Your task to perform on an android device: Go to Android settings Image 0: 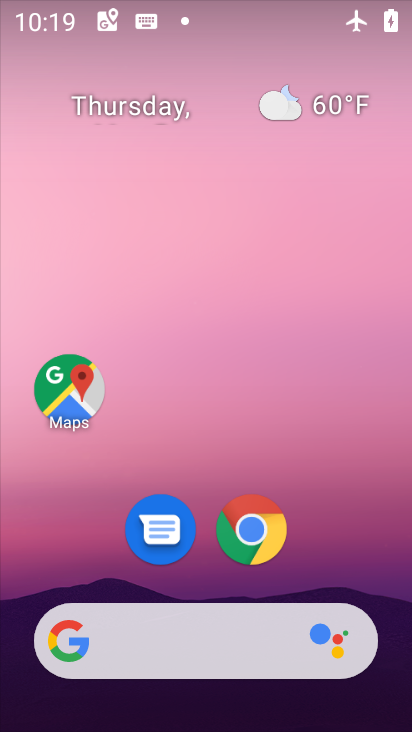
Step 0: drag from (363, 598) to (208, 36)
Your task to perform on an android device: Go to Android settings Image 1: 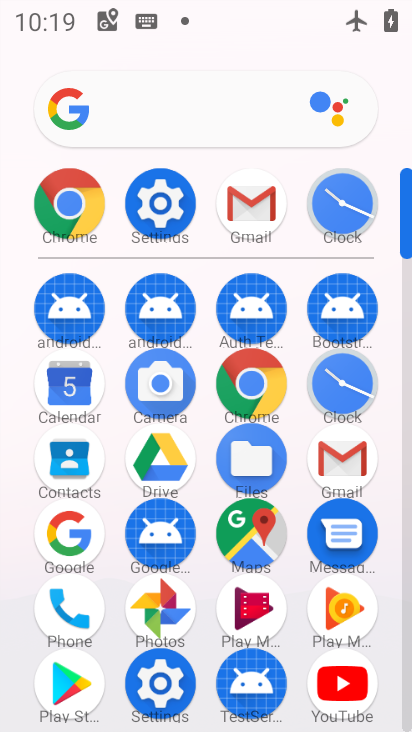
Step 1: click (146, 207)
Your task to perform on an android device: Go to Android settings Image 2: 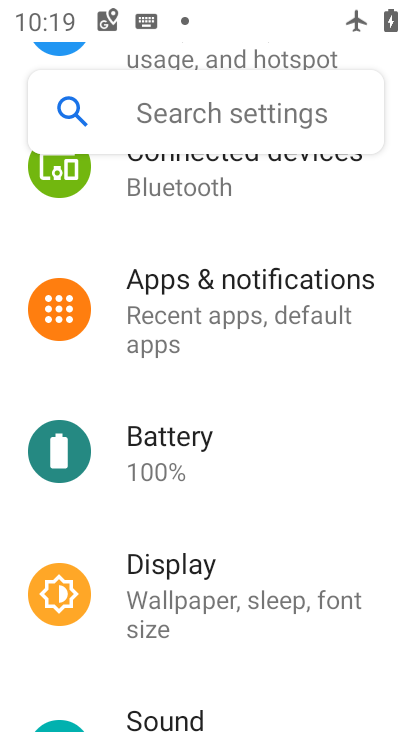
Step 2: press home button
Your task to perform on an android device: Go to Android settings Image 3: 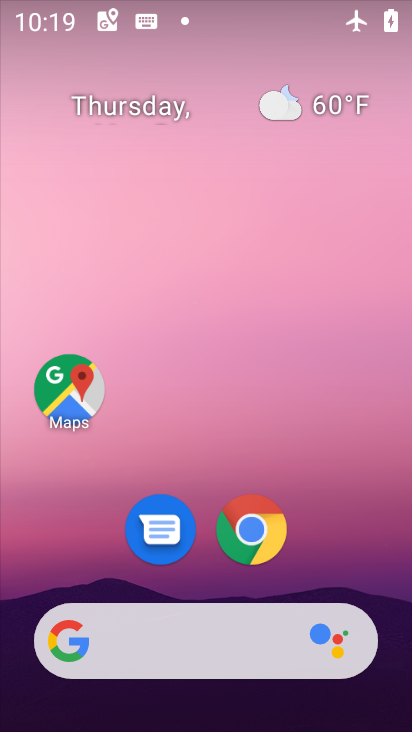
Step 3: drag from (378, 578) to (255, 52)
Your task to perform on an android device: Go to Android settings Image 4: 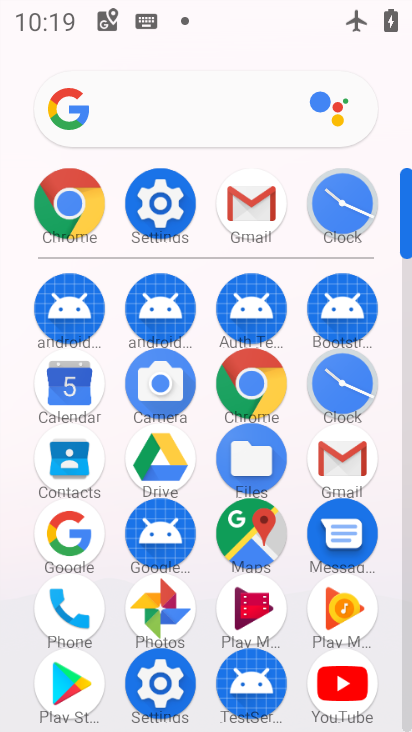
Step 4: click (164, 678)
Your task to perform on an android device: Go to Android settings Image 5: 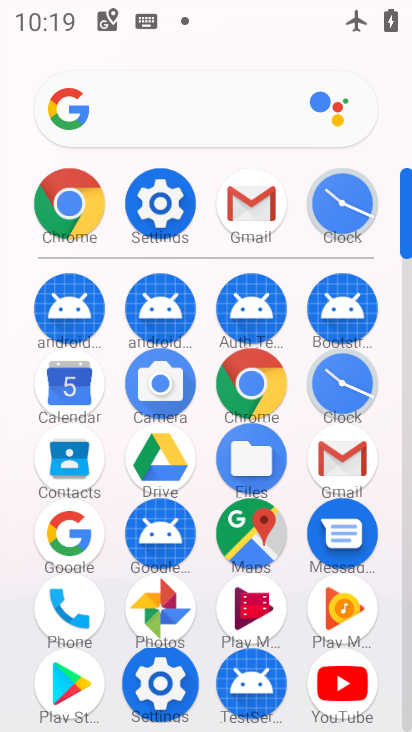
Step 5: click (164, 678)
Your task to perform on an android device: Go to Android settings Image 6: 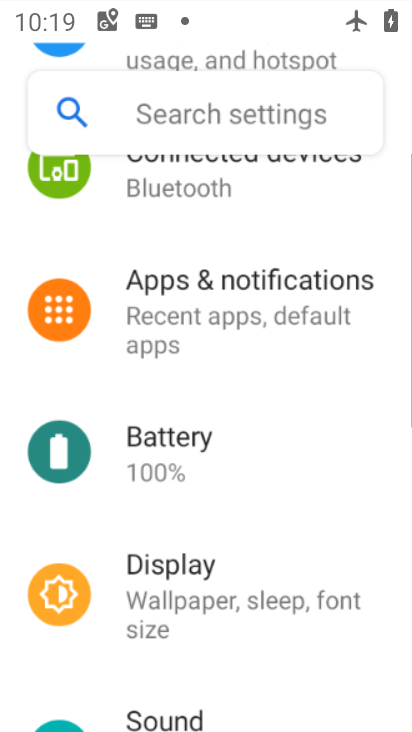
Step 6: click (163, 678)
Your task to perform on an android device: Go to Android settings Image 7: 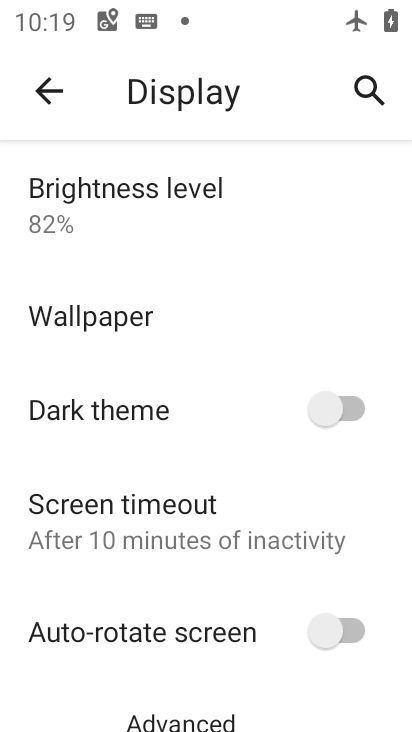
Step 7: drag from (190, 538) to (189, 121)
Your task to perform on an android device: Go to Android settings Image 8: 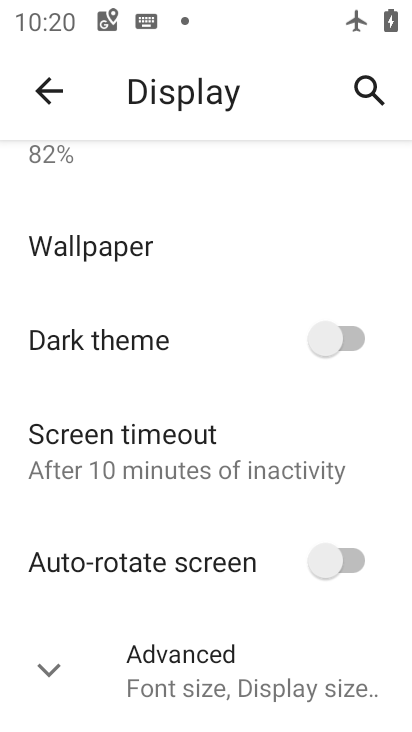
Step 8: click (45, 87)
Your task to perform on an android device: Go to Android settings Image 9: 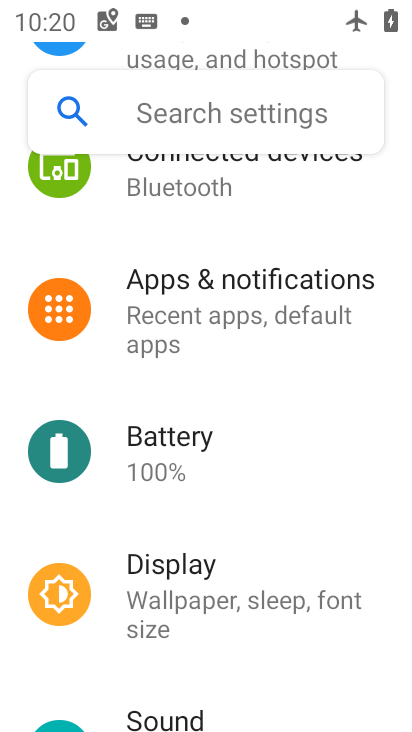
Step 9: drag from (235, 585) to (212, 284)
Your task to perform on an android device: Go to Android settings Image 10: 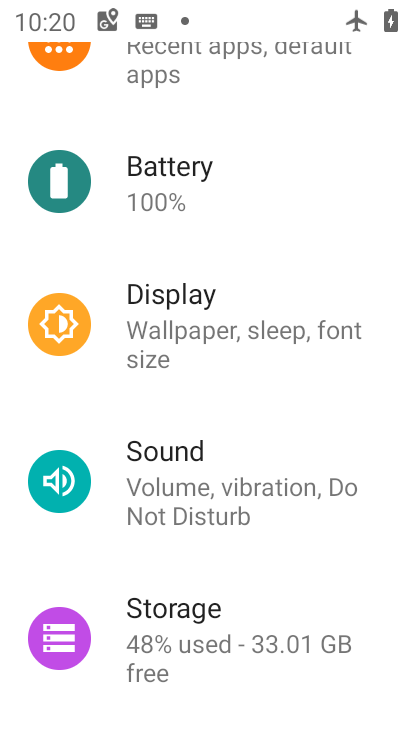
Step 10: drag from (259, 482) to (261, 570)
Your task to perform on an android device: Go to Android settings Image 11: 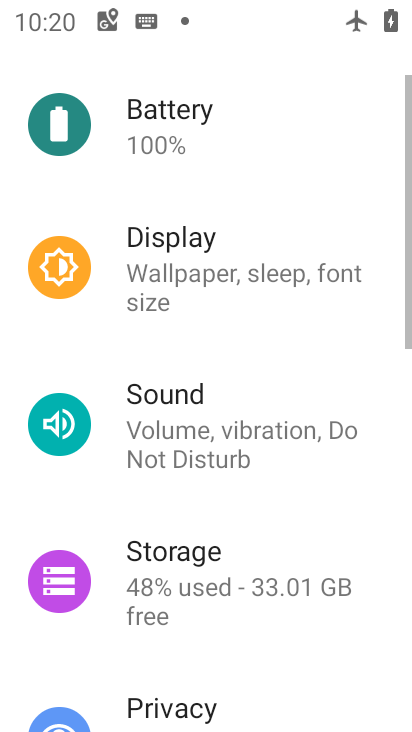
Step 11: drag from (186, 608) to (153, 212)
Your task to perform on an android device: Go to Android settings Image 12: 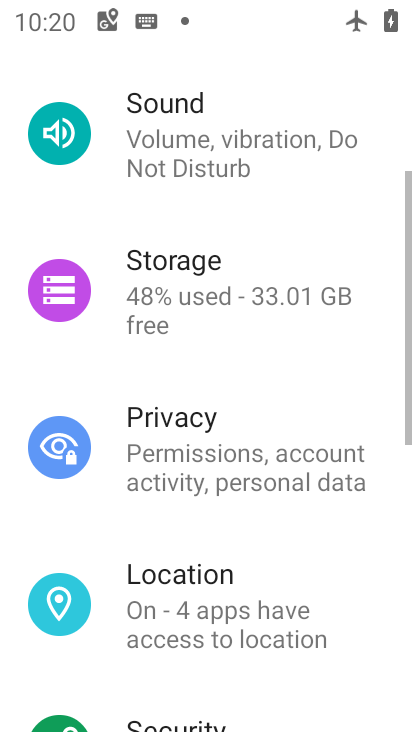
Step 12: drag from (215, 548) to (264, 89)
Your task to perform on an android device: Go to Android settings Image 13: 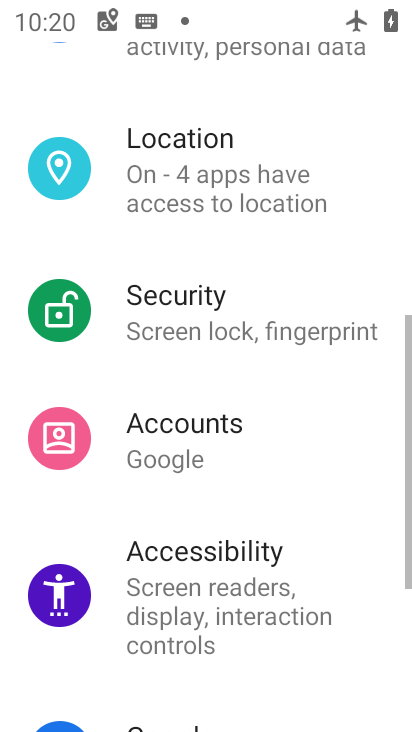
Step 13: drag from (210, 574) to (179, 236)
Your task to perform on an android device: Go to Android settings Image 14: 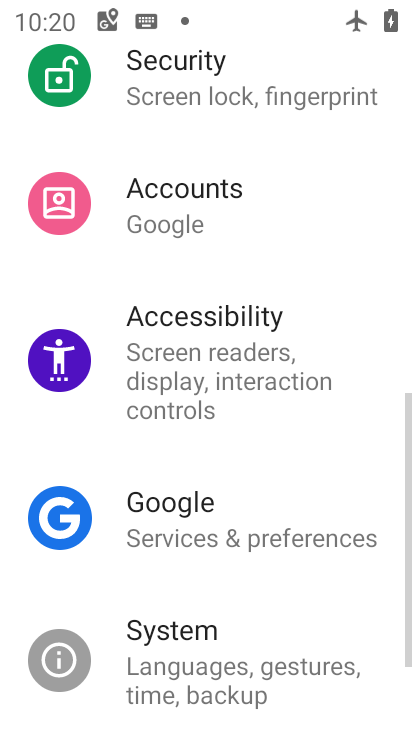
Step 14: drag from (185, 438) to (243, 141)
Your task to perform on an android device: Go to Android settings Image 15: 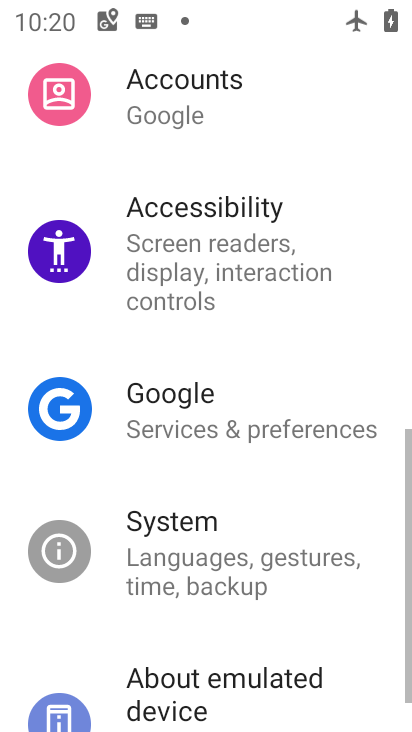
Step 15: drag from (262, 544) to (225, 124)
Your task to perform on an android device: Go to Android settings Image 16: 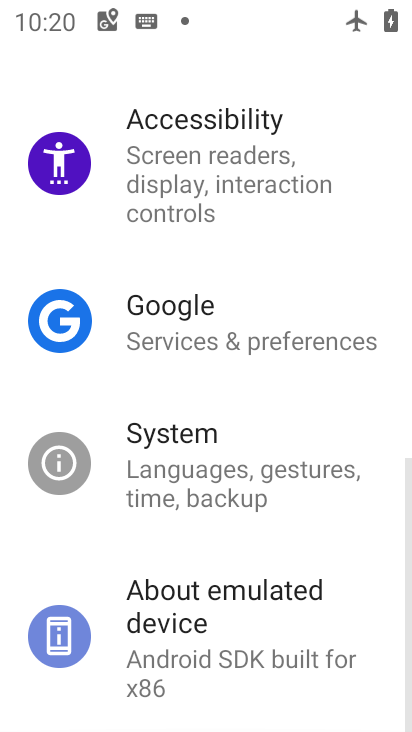
Step 16: drag from (209, 533) to (97, 45)
Your task to perform on an android device: Go to Android settings Image 17: 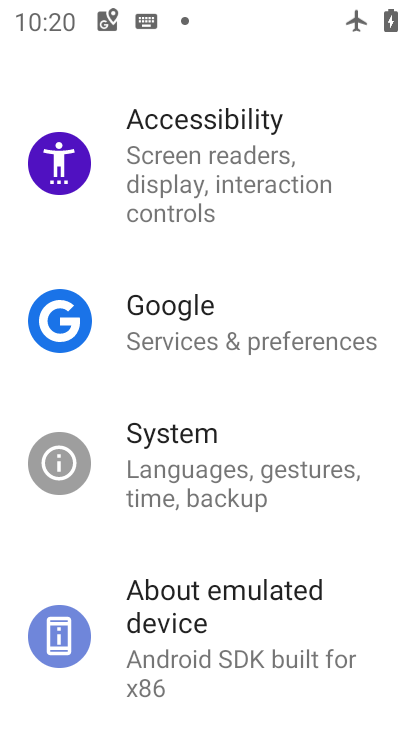
Step 17: drag from (197, 501) to (225, 46)
Your task to perform on an android device: Go to Android settings Image 18: 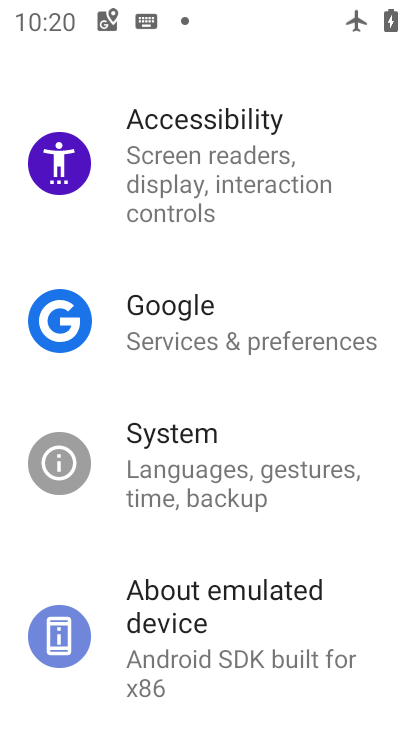
Step 18: click (201, 646)
Your task to perform on an android device: Go to Android settings Image 19: 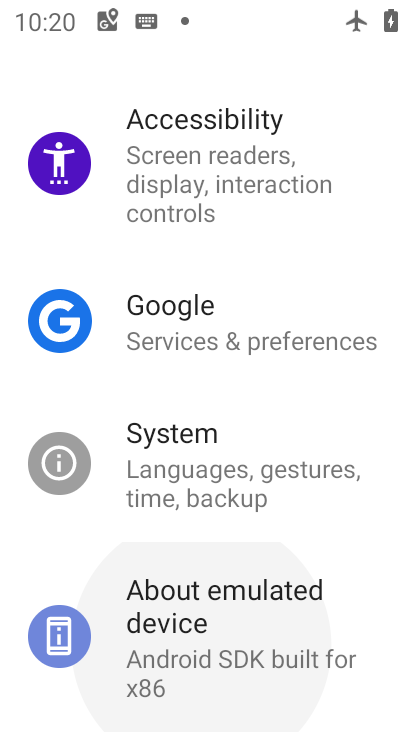
Step 19: click (200, 648)
Your task to perform on an android device: Go to Android settings Image 20: 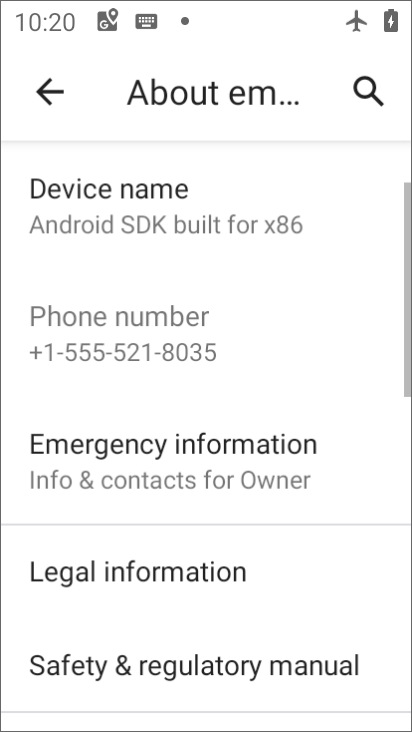
Step 20: click (200, 645)
Your task to perform on an android device: Go to Android settings Image 21: 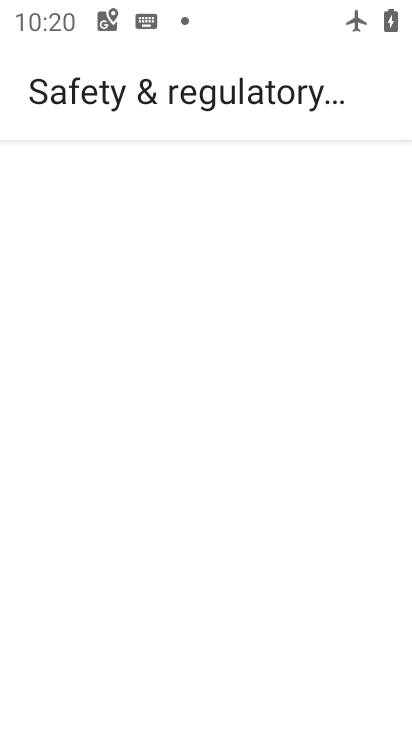
Step 21: press back button
Your task to perform on an android device: Go to Android settings Image 22: 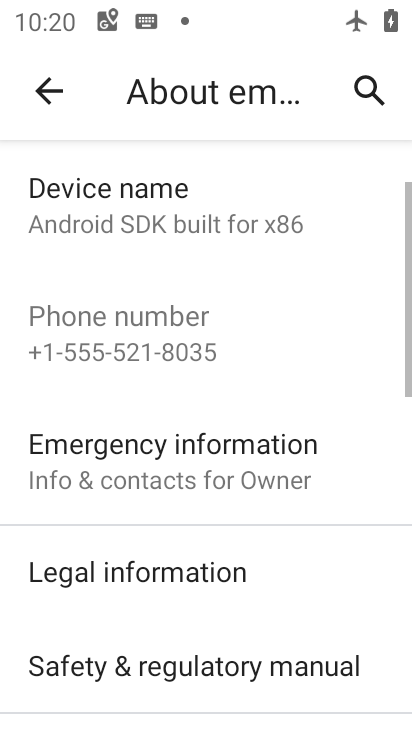
Step 22: drag from (213, 538) to (137, 165)
Your task to perform on an android device: Go to Android settings Image 23: 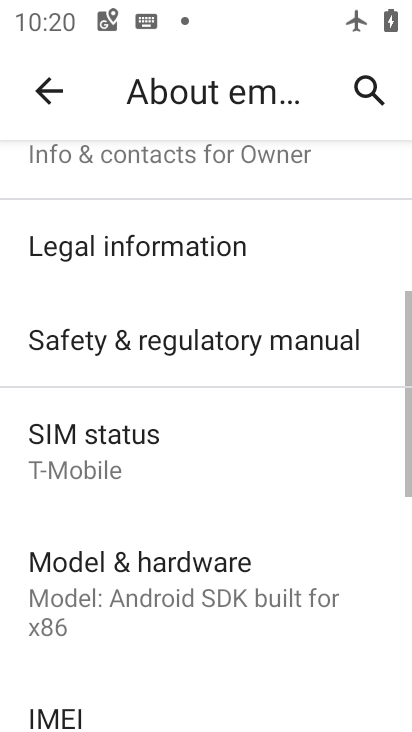
Step 23: drag from (144, 558) to (133, 237)
Your task to perform on an android device: Go to Android settings Image 24: 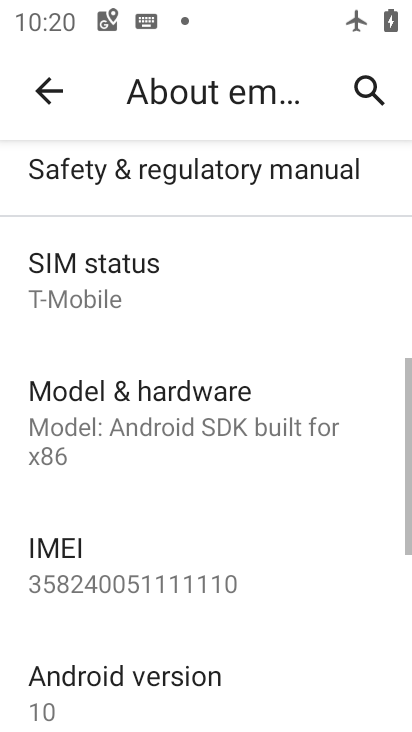
Step 24: drag from (211, 658) to (186, 366)
Your task to perform on an android device: Go to Android settings Image 25: 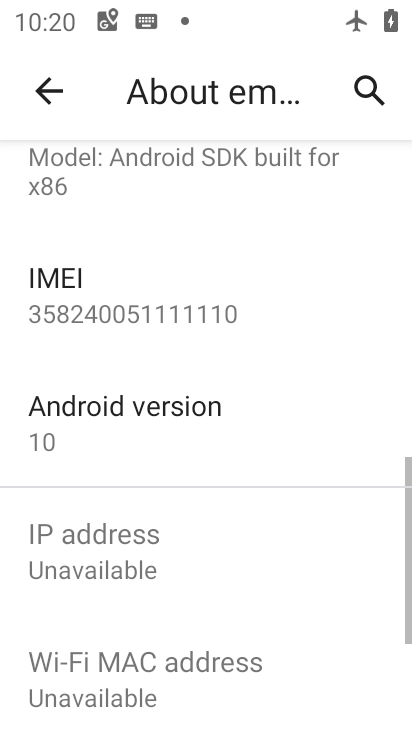
Step 25: drag from (232, 592) to (217, 291)
Your task to perform on an android device: Go to Android settings Image 26: 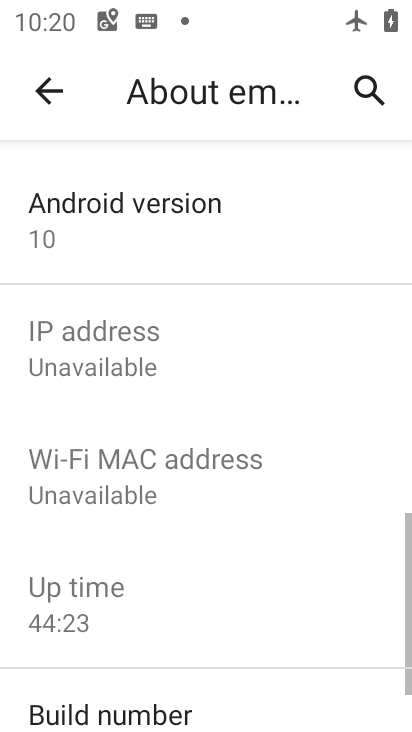
Step 26: drag from (240, 584) to (244, 151)
Your task to perform on an android device: Go to Android settings Image 27: 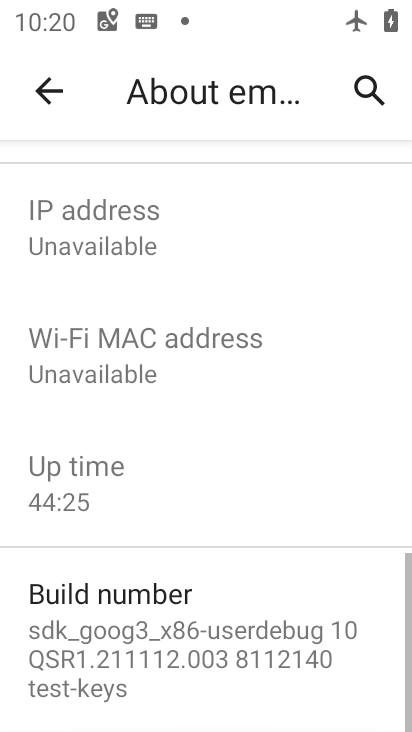
Step 27: drag from (202, 522) to (154, 367)
Your task to perform on an android device: Go to Android settings Image 28: 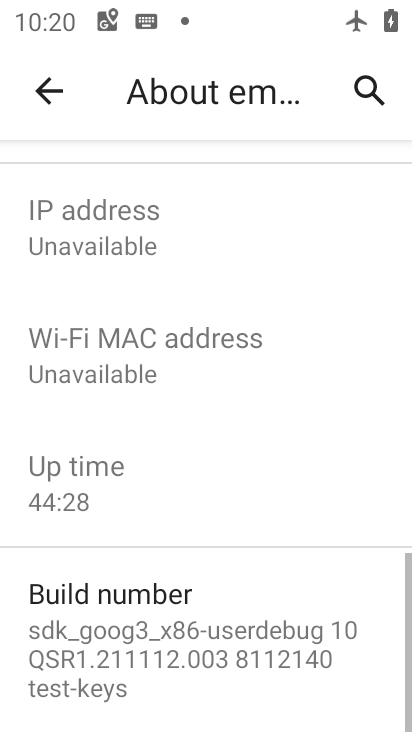
Step 28: drag from (139, 613) to (131, 173)
Your task to perform on an android device: Go to Android settings Image 29: 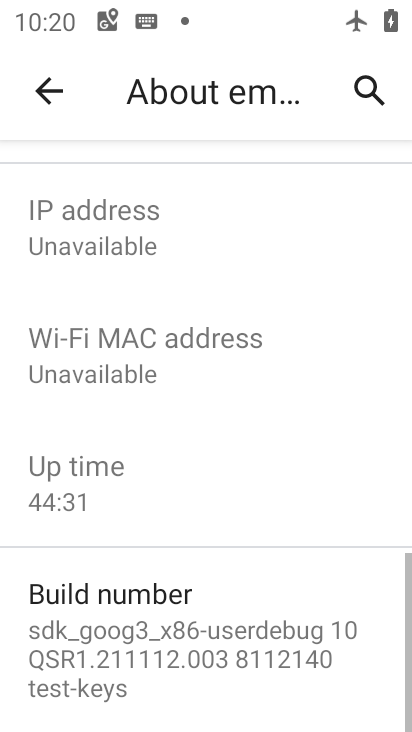
Step 29: click (149, 358)
Your task to perform on an android device: Go to Android settings Image 30: 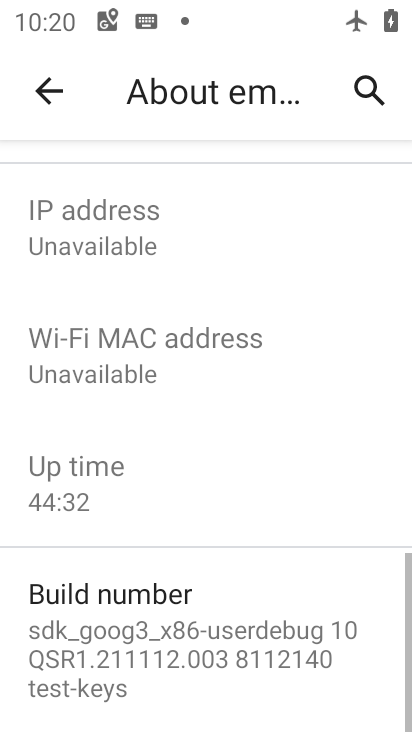
Step 30: task complete